Your task to perform on an android device: install app "Microsoft Outlook" Image 0: 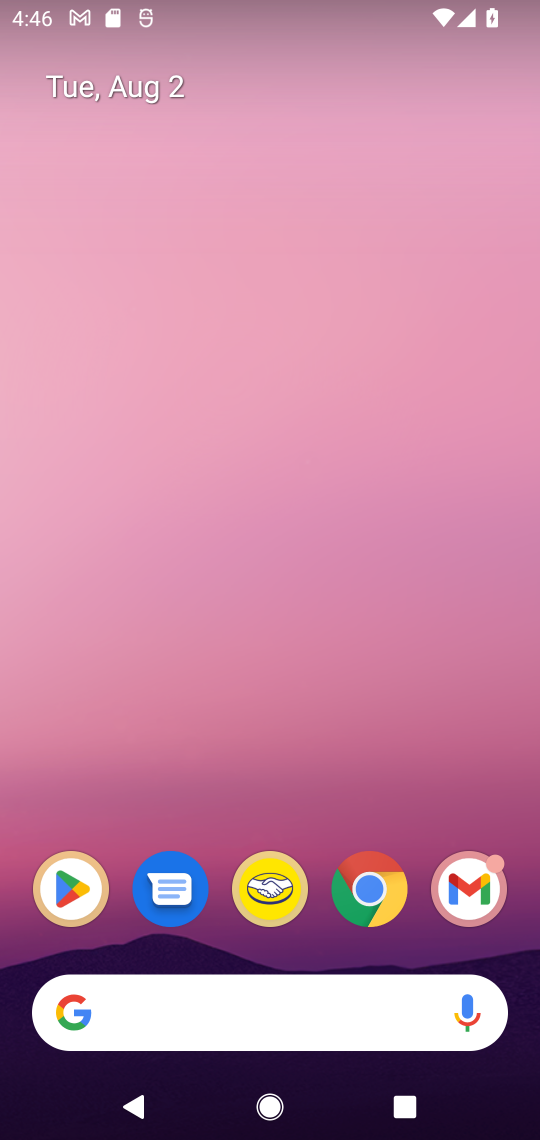
Step 0: press home button
Your task to perform on an android device: install app "Microsoft Outlook" Image 1: 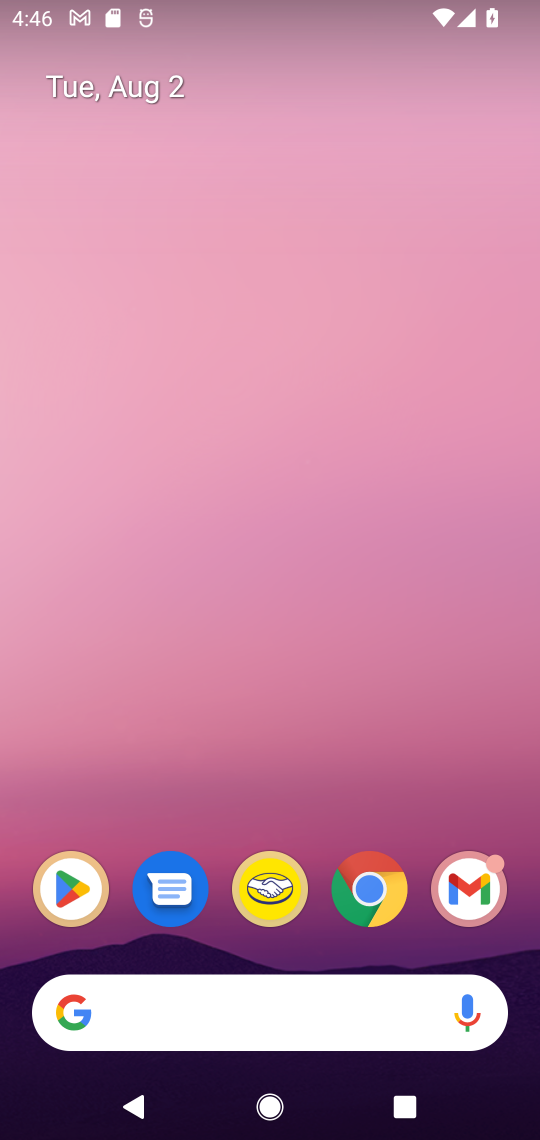
Step 1: drag from (431, 809) to (401, 79)
Your task to perform on an android device: install app "Microsoft Outlook" Image 2: 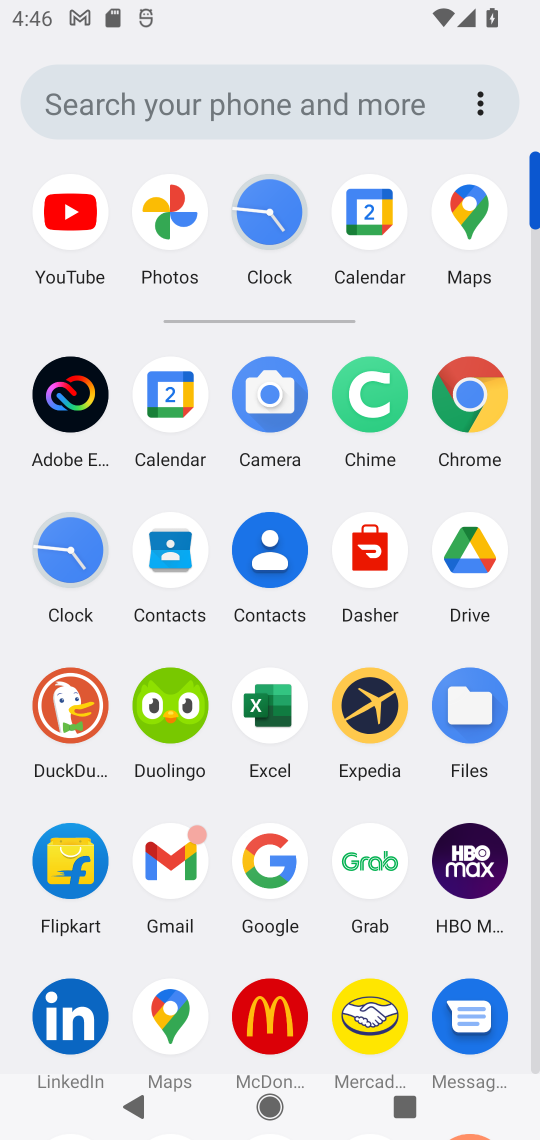
Step 2: drag from (515, 960) to (504, 467)
Your task to perform on an android device: install app "Microsoft Outlook" Image 3: 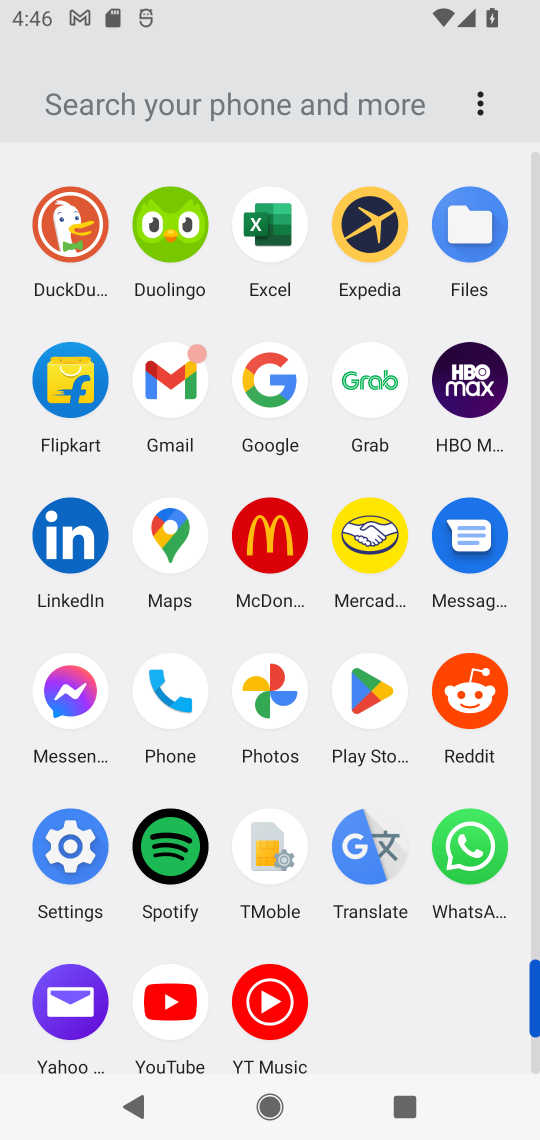
Step 3: click (365, 700)
Your task to perform on an android device: install app "Microsoft Outlook" Image 4: 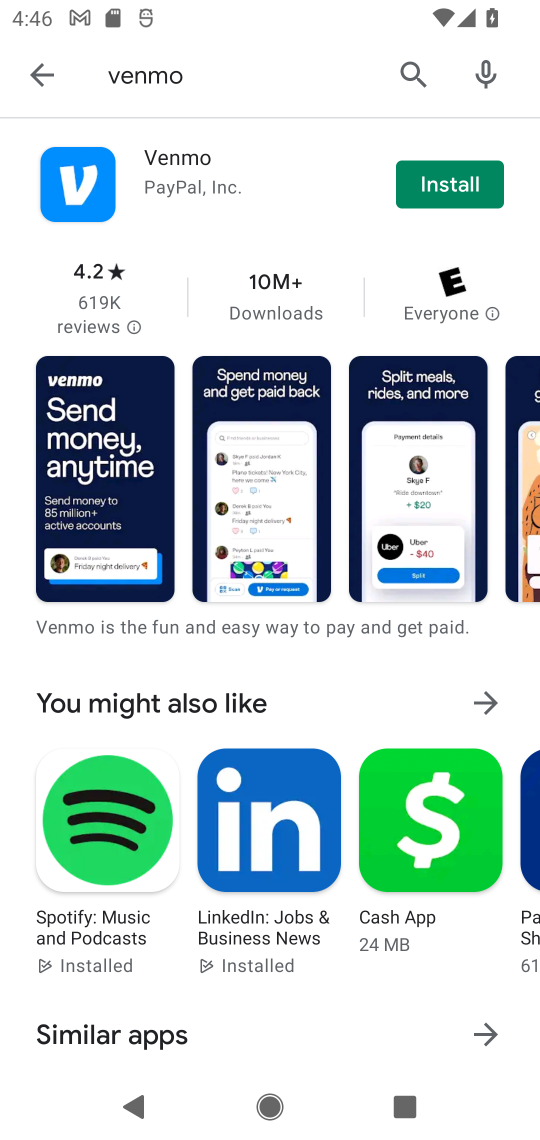
Step 4: click (414, 75)
Your task to perform on an android device: install app "Microsoft Outlook" Image 5: 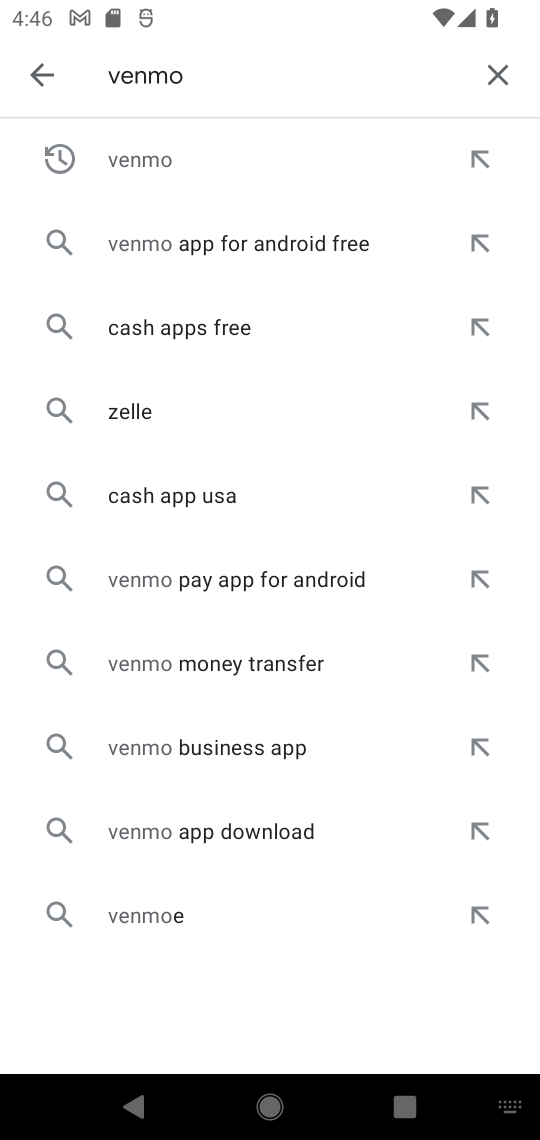
Step 5: click (484, 71)
Your task to perform on an android device: install app "Microsoft Outlook" Image 6: 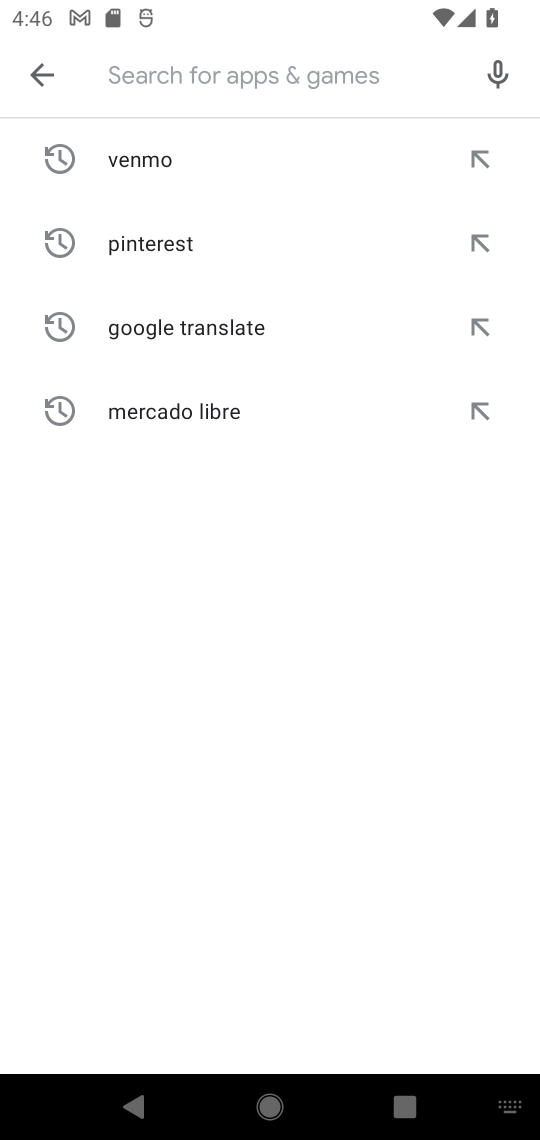
Step 6: type "microsoft outlook"
Your task to perform on an android device: install app "Microsoft Outlook" Image 7: 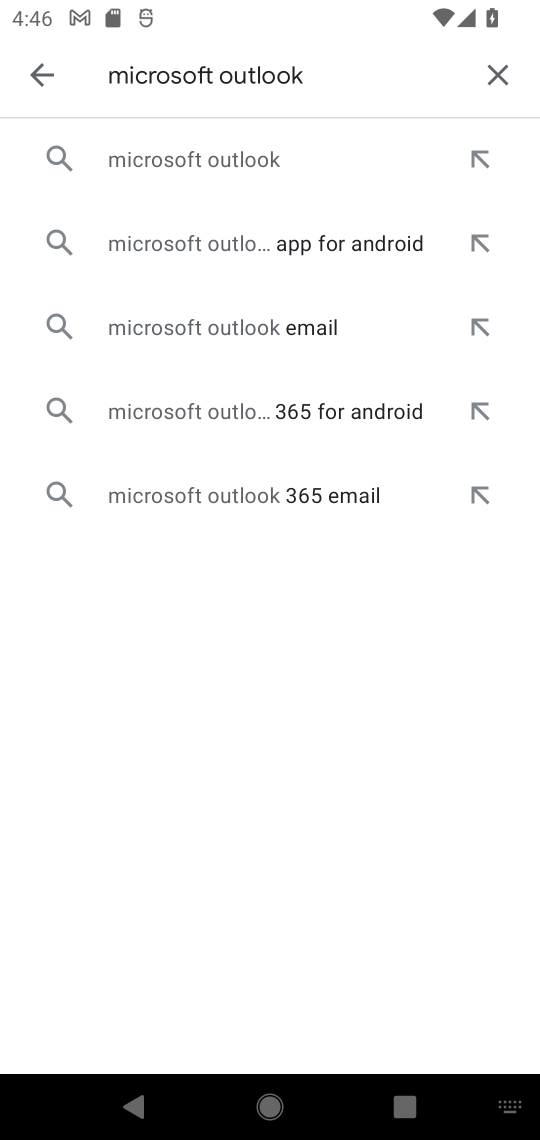
Step 7: click (258, 148)
Your task to perform on an android device: install app "Microsoft Outlook" Image 8: 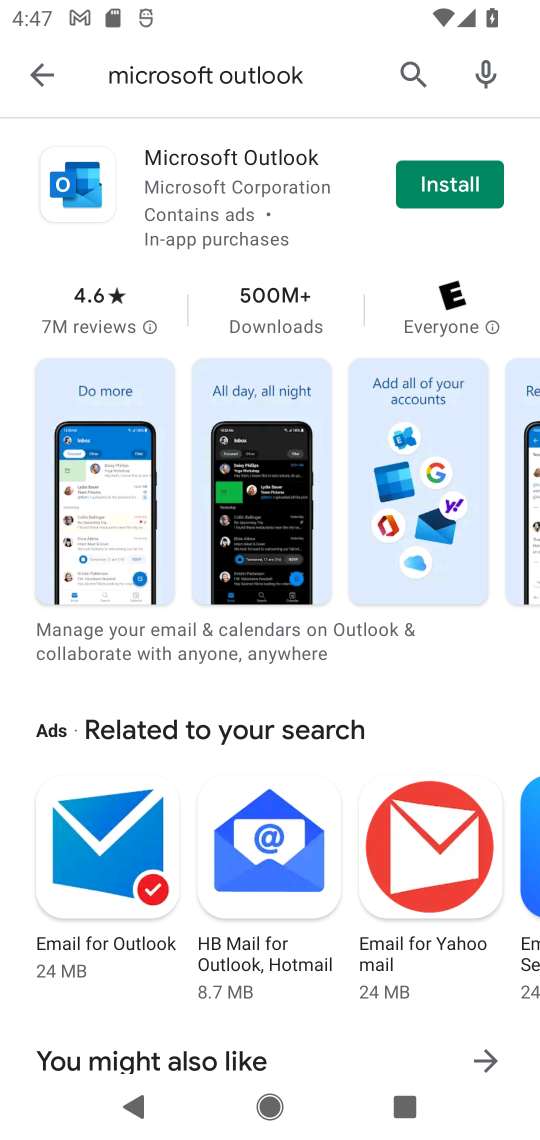
Step 8: click (460, 188)
Your task to perform on an android device: install app "Microsoft Outlook" Image 9: 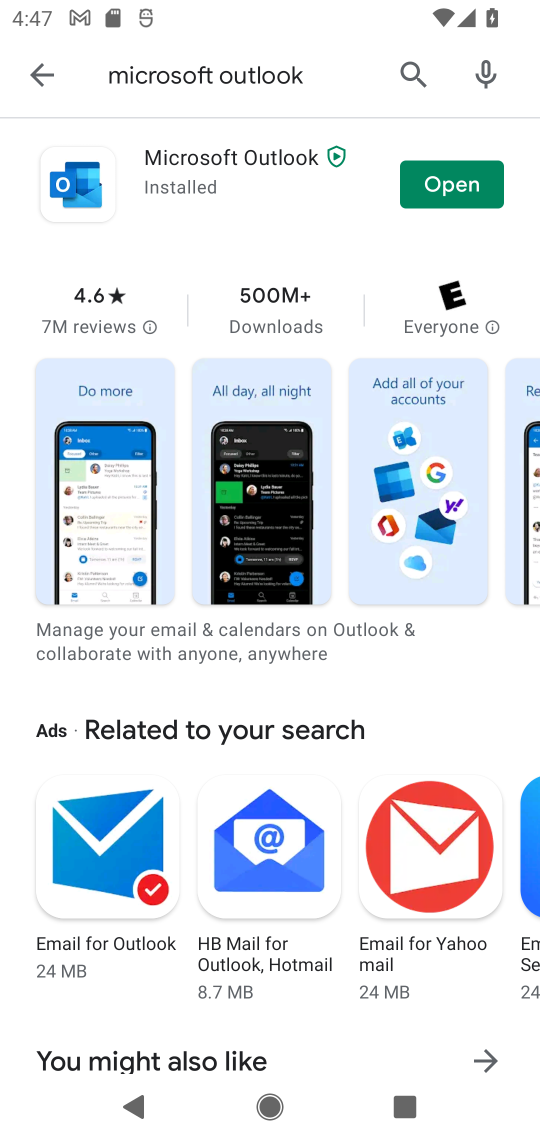
Step 9: task complete